Your task to perform on an android device: Open Google Maps and go to "Timeline" Image 0: 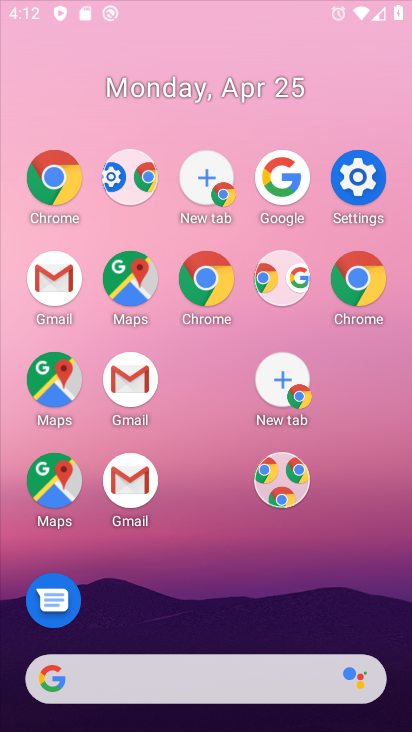
Step 0: drag from (261, 581) to (140, 0)
Your task to perform on an android device: Open Google Maps and go to "Timeline" Image 1: 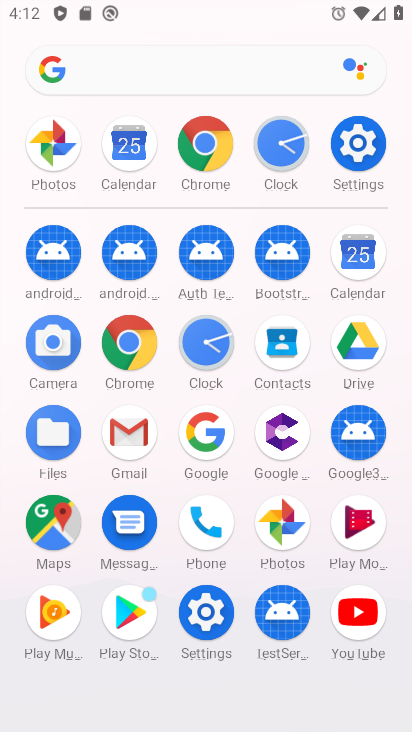
Step 1: click (64, 510)
Your task to perform on an android device: Open Google Maps and go to "Timeline" Image 2: 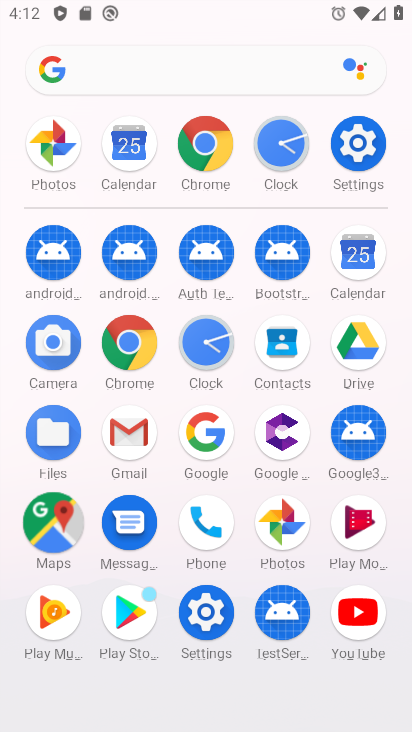
Step 2: click (64, 511)
Your task to perform on an android device: Open Google Maps and go to "Timeline" Image 3: 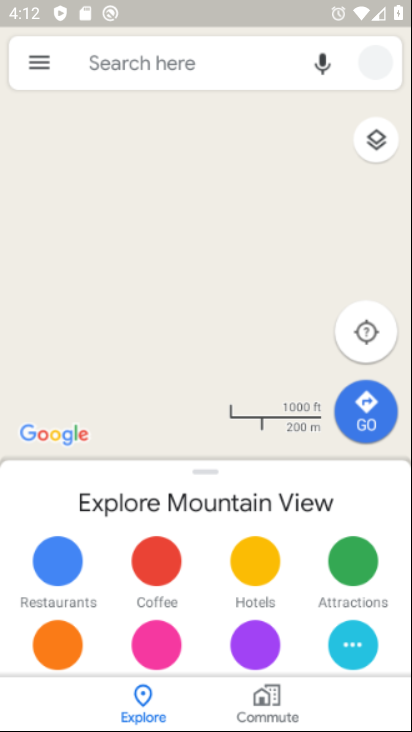
Step 3: click (64, 511)
Your task to perform on an android device: Open Google Maps and go to "Timeline" Image 4: 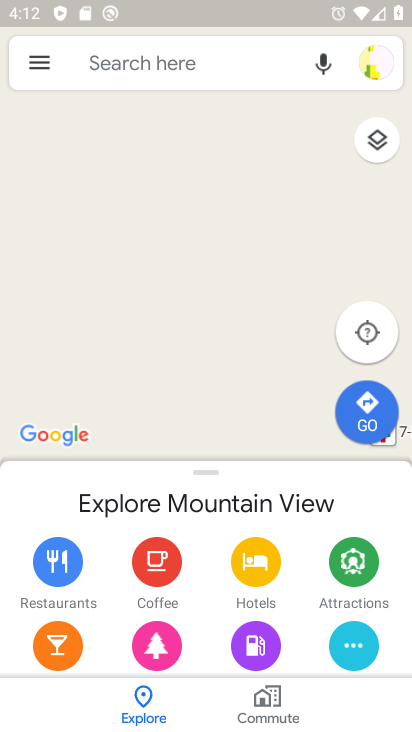
Step 4: drag from (31, 59) to (33, 150)
Your task to perform on an android device: Open Google Maps and go to "Timeline" Image 5: 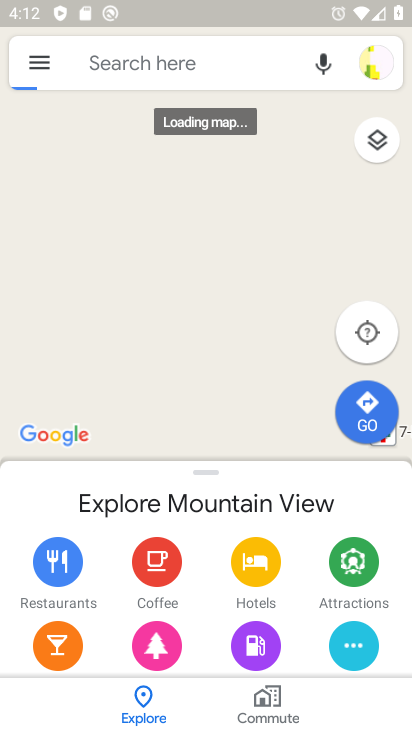
Step 5: click (48, 58)
Your task to perform on an android device: Open Google Maps and go to "Timeline" Image 6: 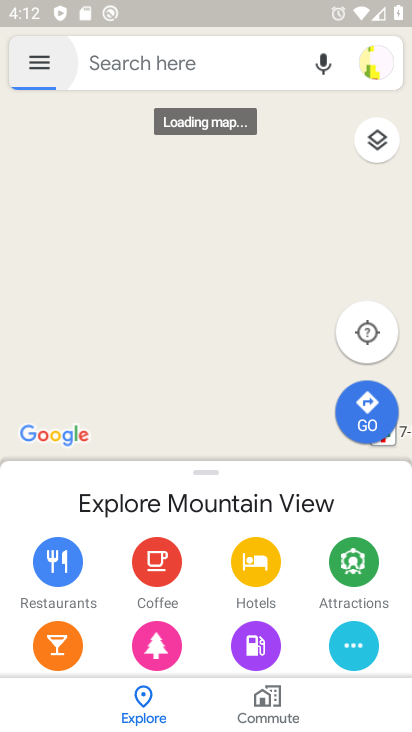
Step 6: click (48, 58)
Your task to perform on an android device: Open Google Maps and go to "Timeline" Image 7: 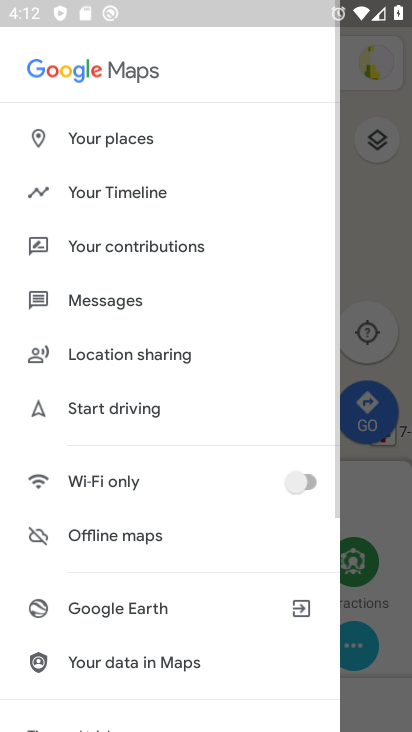
Step 7: click (144, 192)
Your task to perform on an android device: Open Google Maps and go to "Timeline" Image 8: 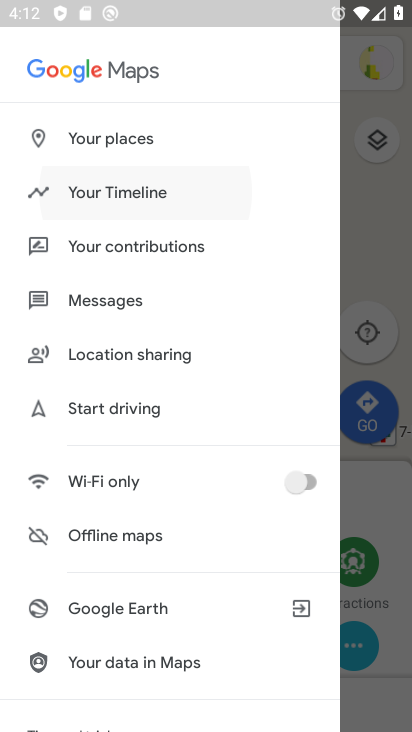
Step 8: click (137, 187)
Your task to perform on an android device: Open Google Maps and go to "Timeline" Image 9: 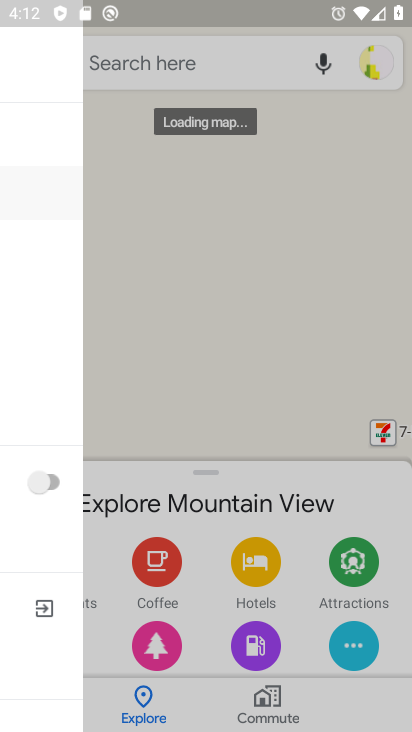
Step 9: click (134, 187)
Your task to perform on an android device: Open Google Maps and go to "Timeline" Image 10: 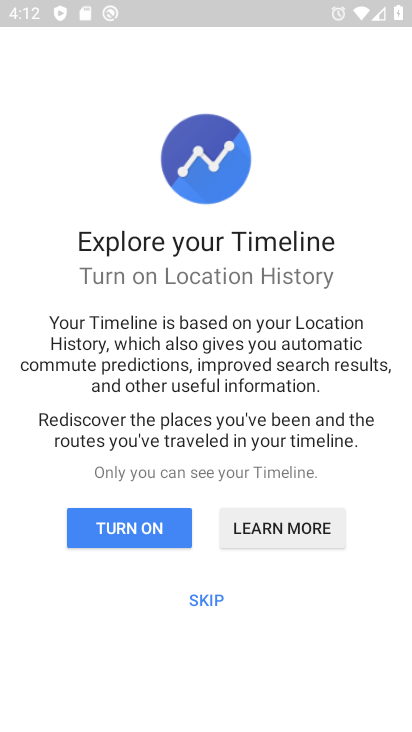
Step 10: task complete